Your task to perform on an android device: Open eBay Image 0: 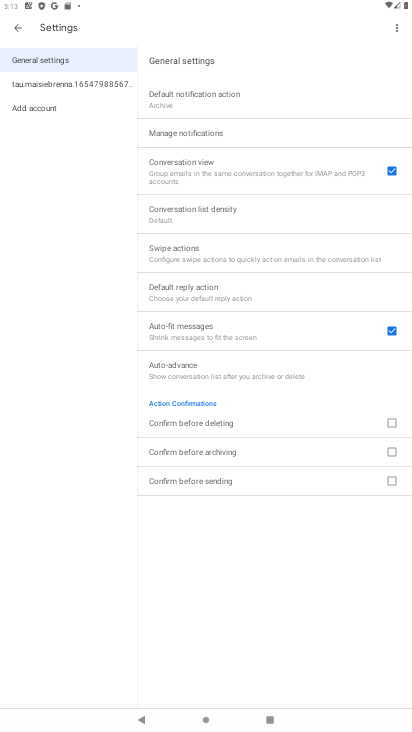
Step 0: press home button
Your task to perform on an android device: Open eBay Image 1: 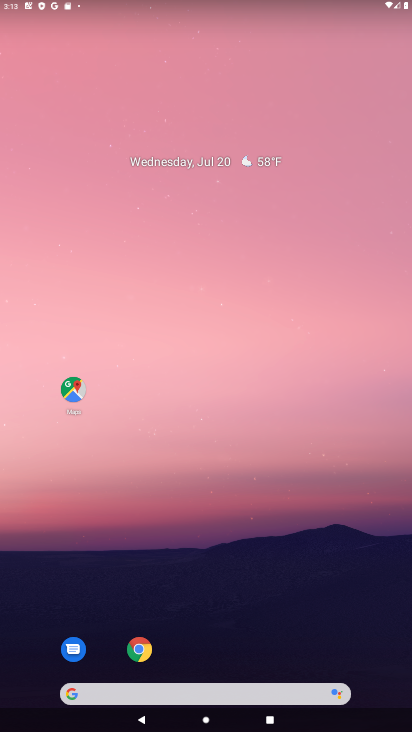
Step 1: click (140, 649)
Your task to perform on an android device: Open eBay Image 2: 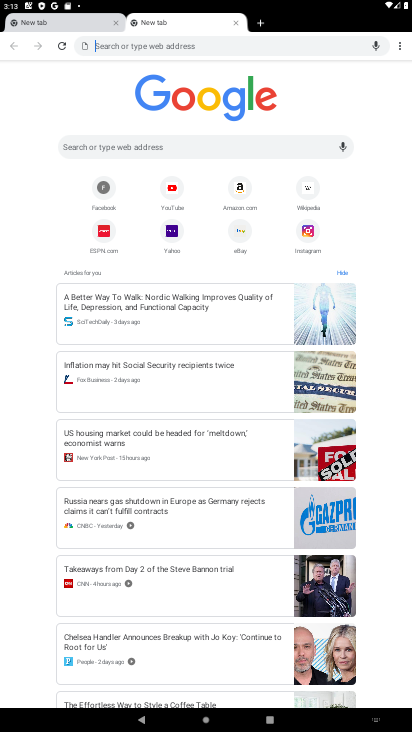
Step 2: click (237, 231)
Your task to perform on an android device: Open eBay Image 3: 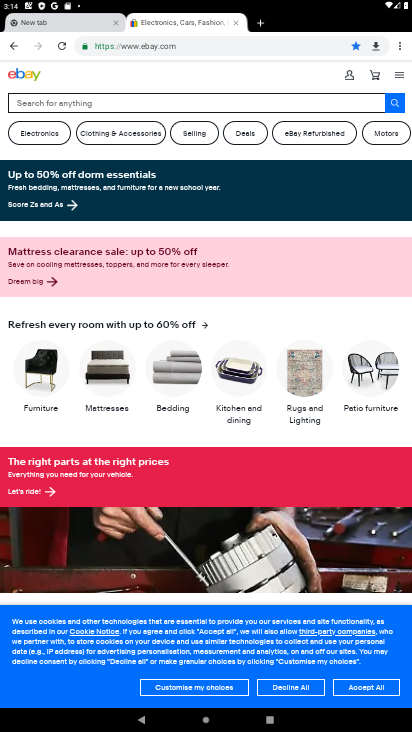
Step 3: task complete